Your task to perform on an android device: clear all cookies in the chrome app Image 0: 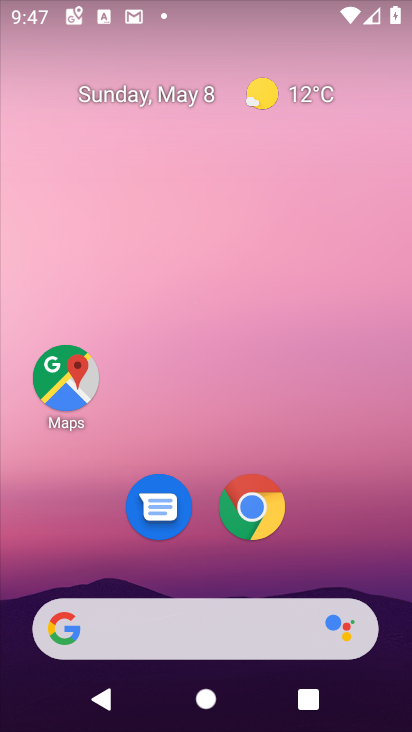
Step 0: click (245, 505)
Your task to perform on an android device: clear all cookies in the chrome app Image 1: 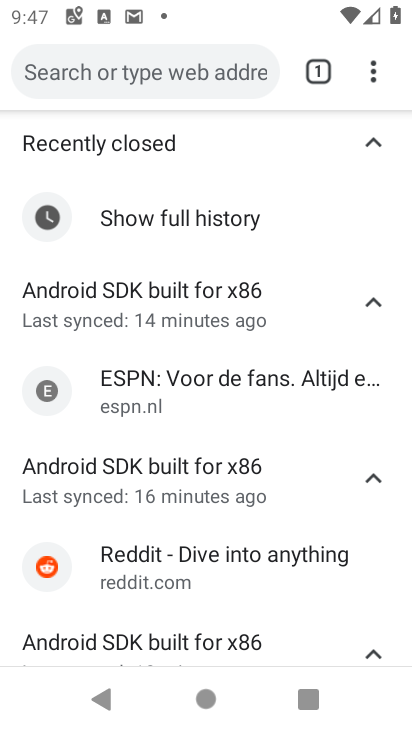
Step 1: click (374, 62)
Your task to perform on an android device: clear all cookies in the chrome app Image 2: 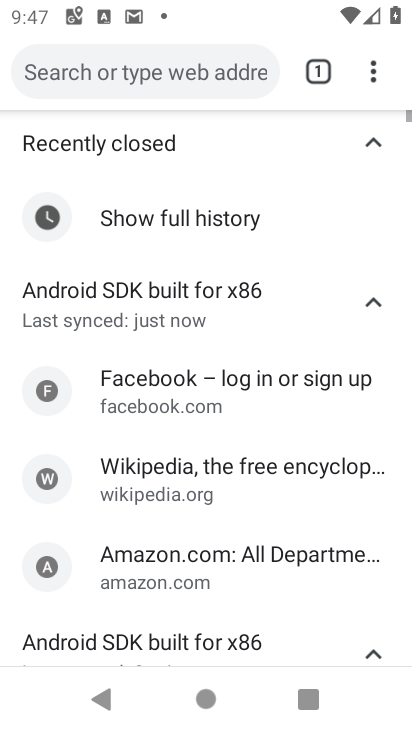
Step 2: drag from (377, 68) to (138, 408)
Your task to perform on an android device: clear all cookies in the chrome app Image 3: 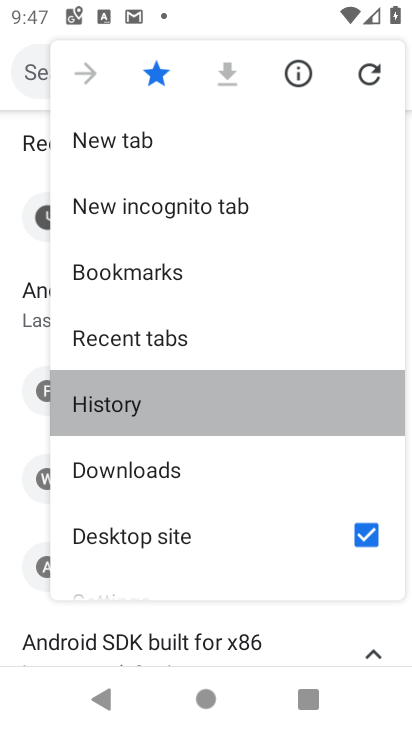
Step 3: click (136, 408)
Your task to perform on an android device: clear all cookies in the chrome app Image 4: 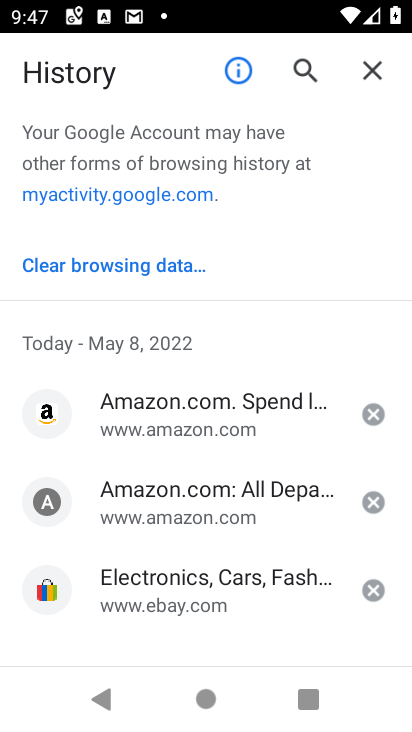
Step 4: click (148, 261)
Your task to perform on an android device: clear all cookies in the chrome app Image 5: 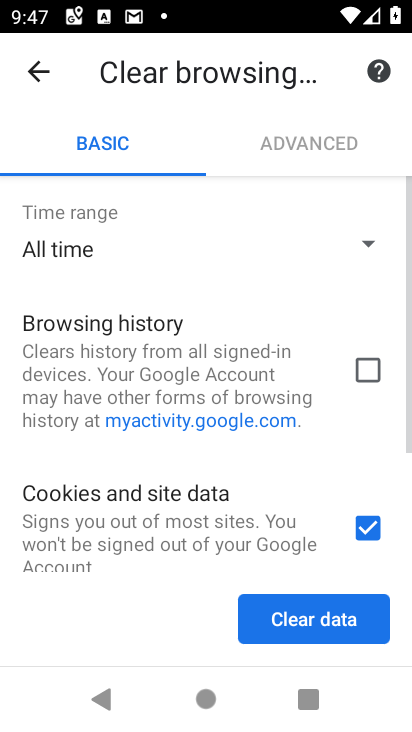
Step 5: click (311, 623)
Your task to perform on an android device: clear all cookies in the chrome app Image 6: 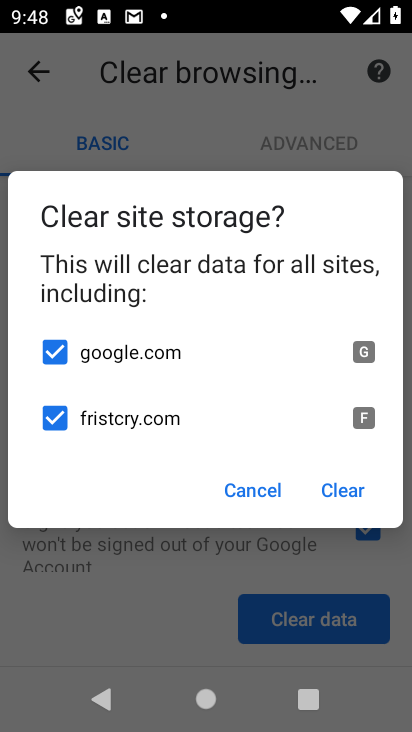
Step 6: click (351, 496)
Your task to perform on an android device: clear all cookies in the chrome app Image 7: 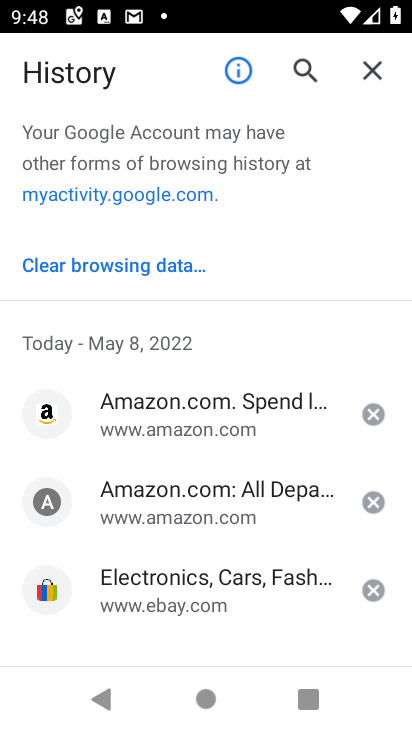
Step 7: task complete